Your task to perform on an android device: Is it going to rain today? Image 0: 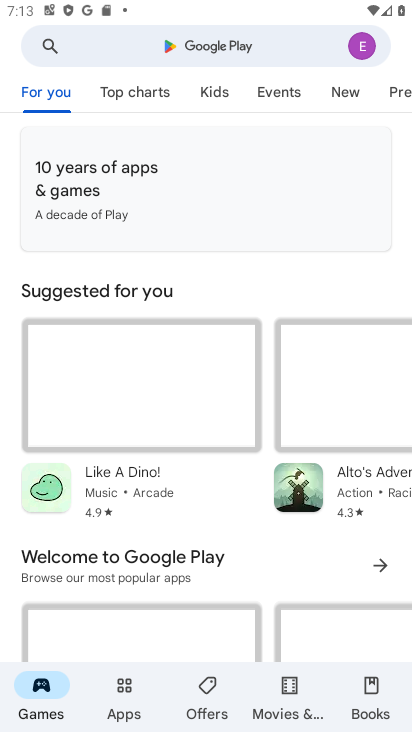
Step 0: press home button
Your task to perform on an android device: Is it going to rain today? Image 1: 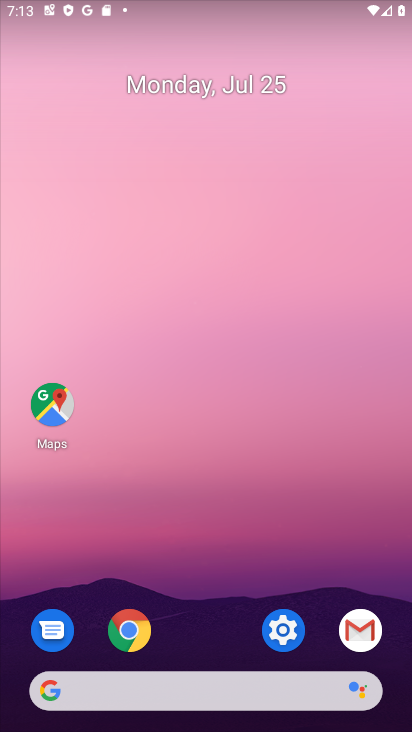
Step 1: click (192, 706)
Your task to perform on an android device: Is it going to rain today? Image 2: 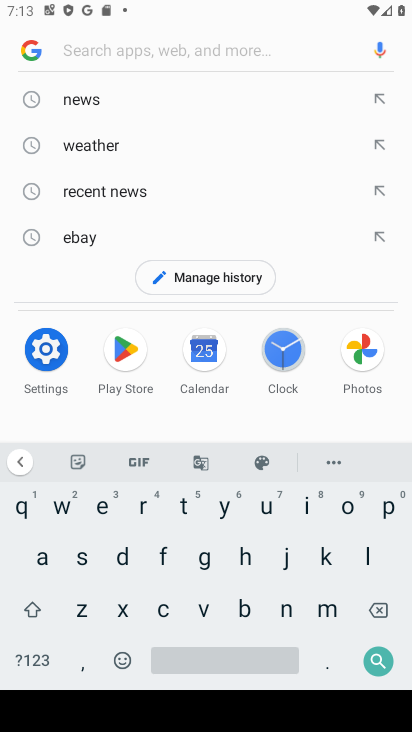
Step 2: click (304, 507)
Your task to perform on an android device: Is it going to rain today? Image 3: 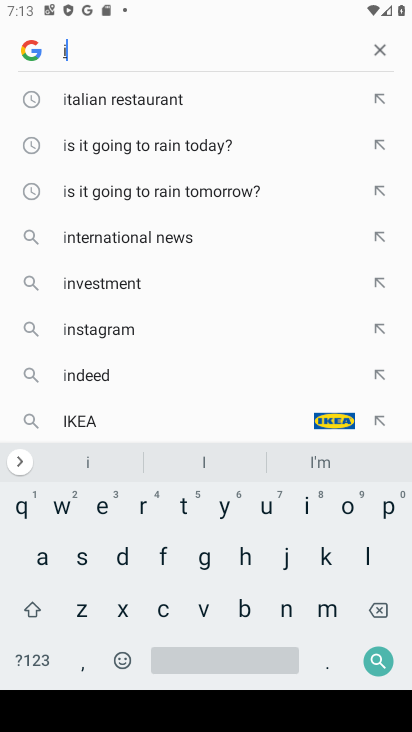
Step 3: click (76, 543)
Your task to perform on an android device: Is it going to rain today? Image 4: 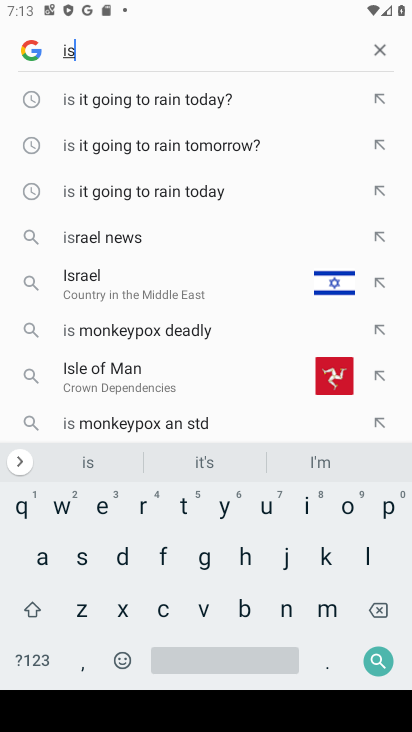
Step 4: click (173, 99)
Your task to perform on an android device: Is it going to rain today? Image 5: 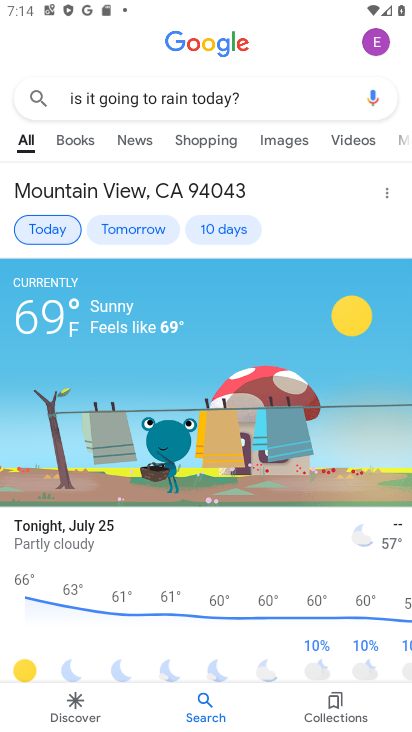
Step 5: task complete